Your task to perform on an android device: turn on showing notifications on the lock screen Image 0: 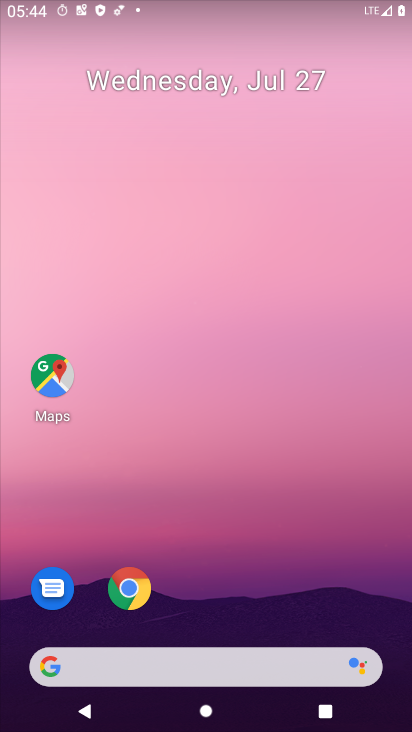
Step 0: drag from (195, 659) to (331, 3)
Your task to perform on an android device: turn on showing notifications on the lock screen Image 1: 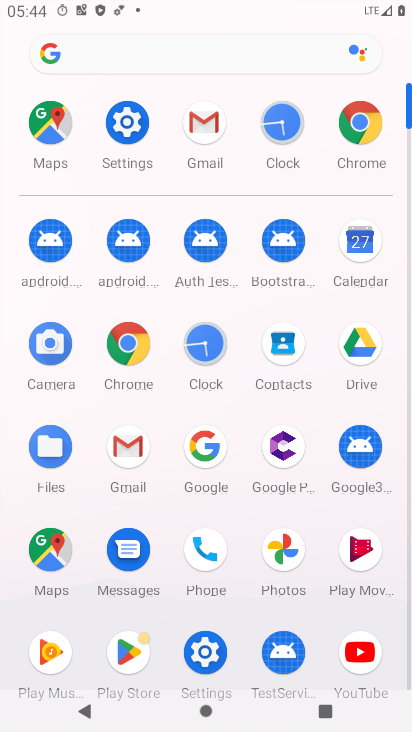
Step 1: click (129, 123)
Your task to perform on an android device: turn on showing notifications on the lock screen Image 2: 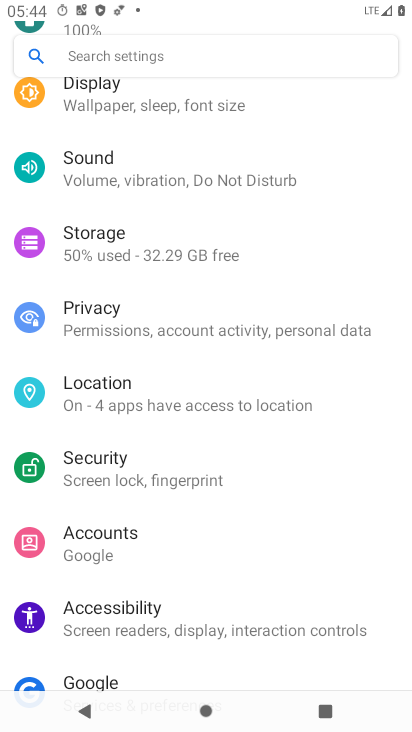
Step 2: drag from (137, 236) to (146, 683)
Your task to perform on an android device: turn on showing notifications on the lock screen Image 3: 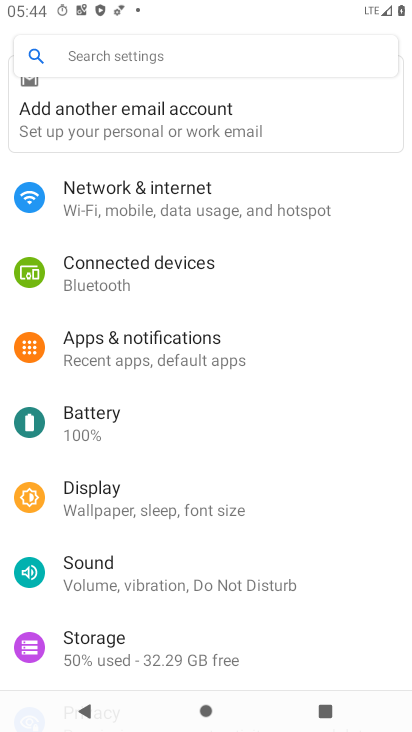
Step 3: click (142, 353)
Your task to perform on an android device: turn on showing notifications on the lock screen Image 4: 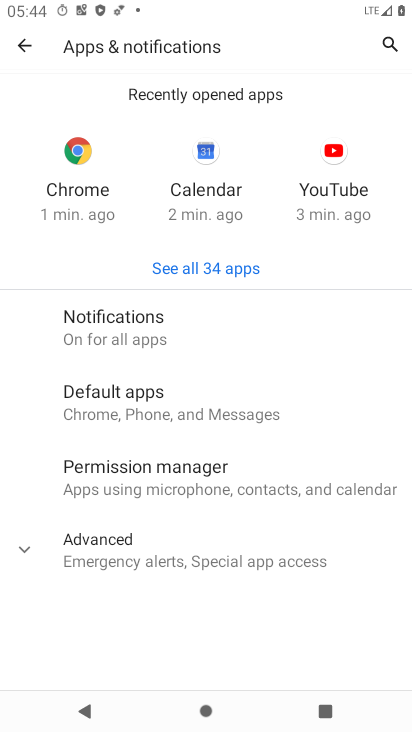
Step 4: click (123, 324)
Your task to perform on an android device: turn on showing notifications on the lock screen Image 5: 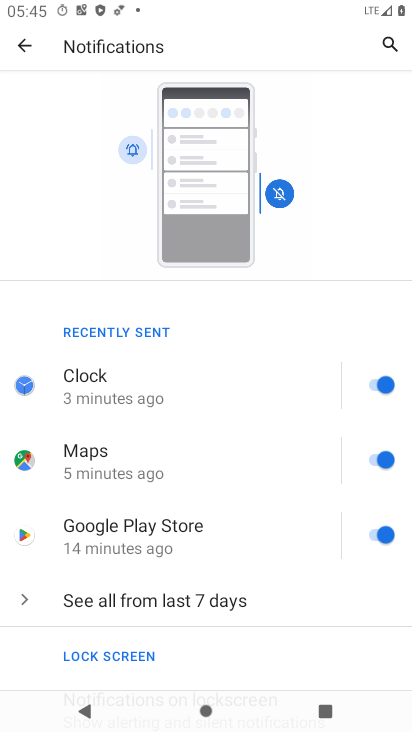
Step 5: drag from (200, 599) to (233, 241)
Your task to perform on an android device: turn on showing notifications on the lock screen Image 6: 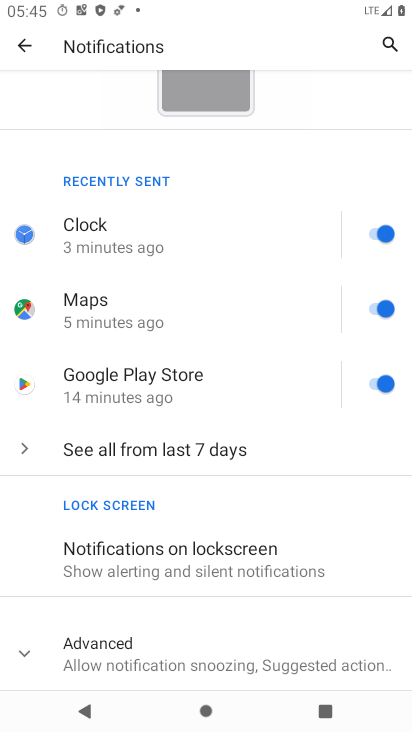
Step 6: click (225, 570)
Your task to perform on an android device: turn on showing notifications on the lock screen Image 7: 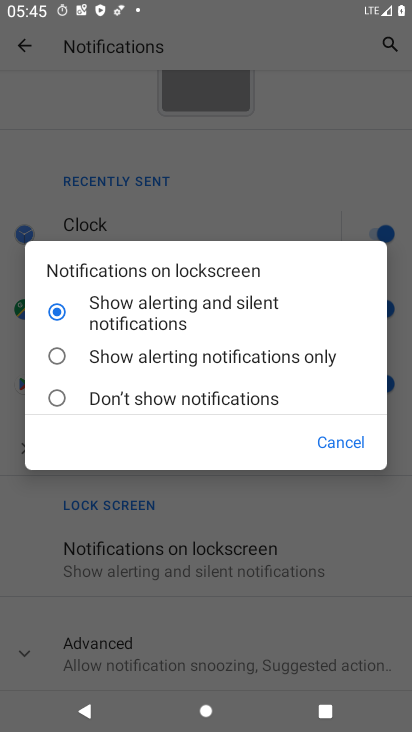
Step 7: task complete